Your task to perform on an android device: Open Chrome and go to settings Image 0: 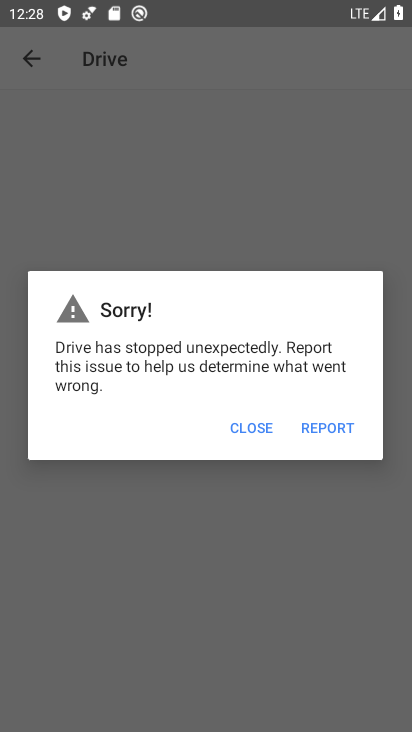
Step 0: press home button
Your task to perform on an android device: Open Chrome and go to settings Image 1: 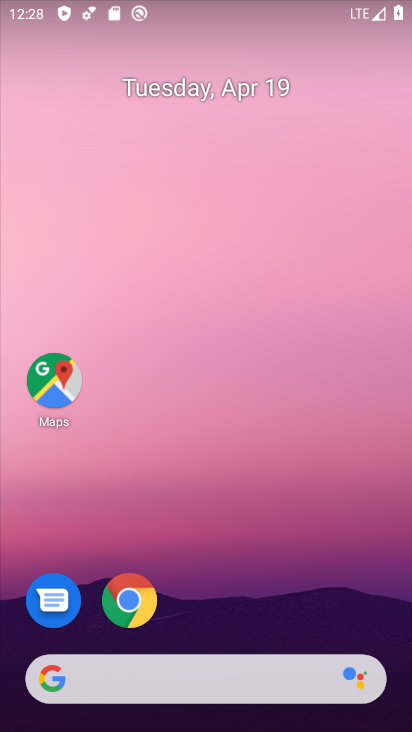
Step 1: click (129, 605)
Your task to perform on an android device: Open Chrome and go to settings Image 2: 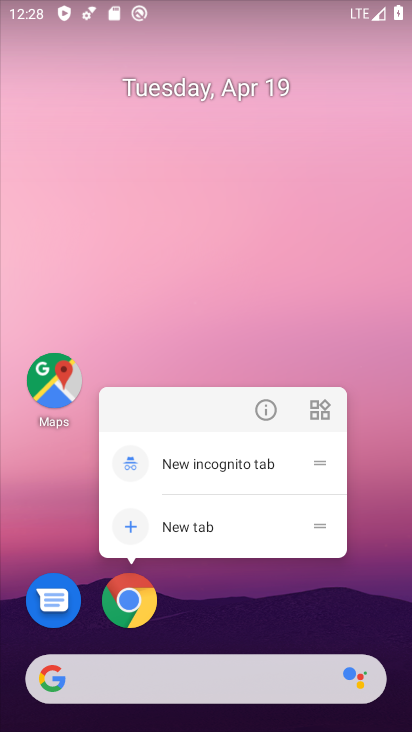
Step 2: click (126, 593)
Your task to perform on an android device: Open Chrome and go to settings Image 3: 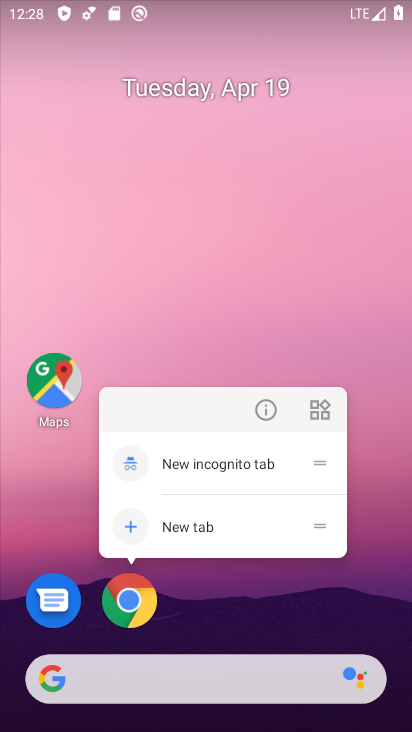
Step 3: drag from (284, 619) to (295, 128)
Your task to perform on an android device: Open Chrome and go to settings Image 4: 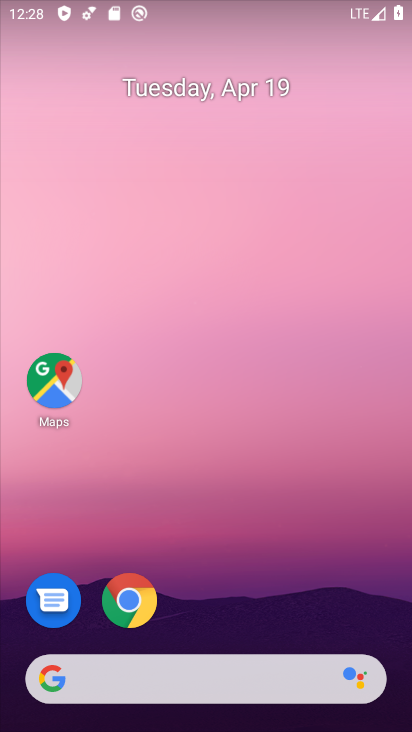
Step 4: drag from (293, 579) to (246, 86)
Your task to perform on an android device: Open Chrome and go to settings Image 5: 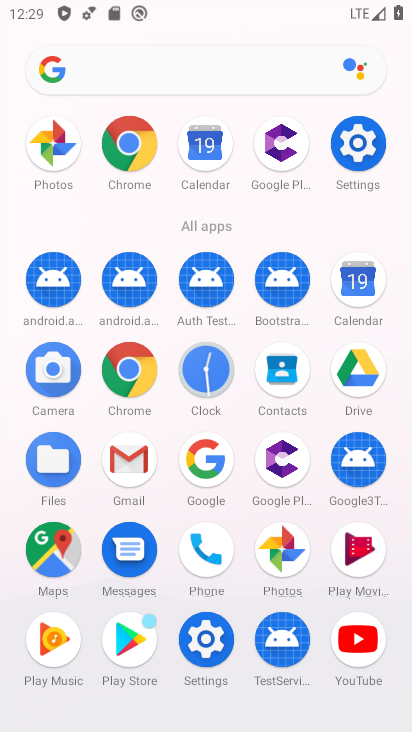
Step 5: click (130, 138)
Your task to perform on an android device: Open Chrome and go to settings Image 6: 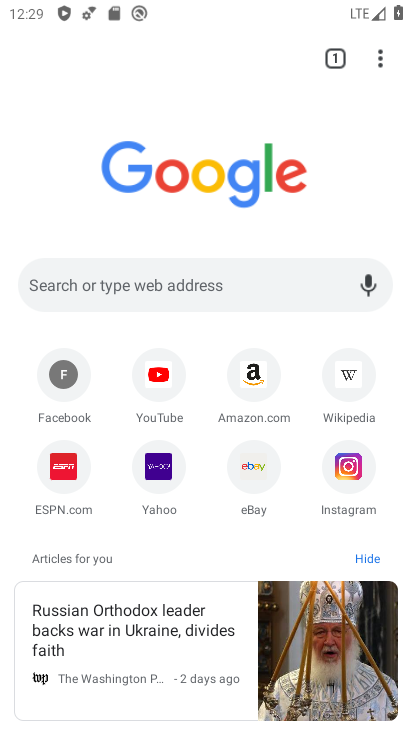
Step 6: click (378, 56)
Your task to perform on an android device: Open Chrome and go to settings Image 7: 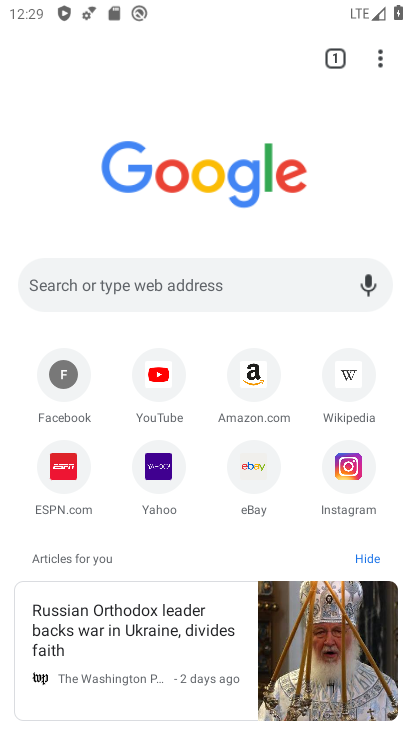
Step 7: task complete